Your task to perform on an android device: toggle sleep mode Image 0: 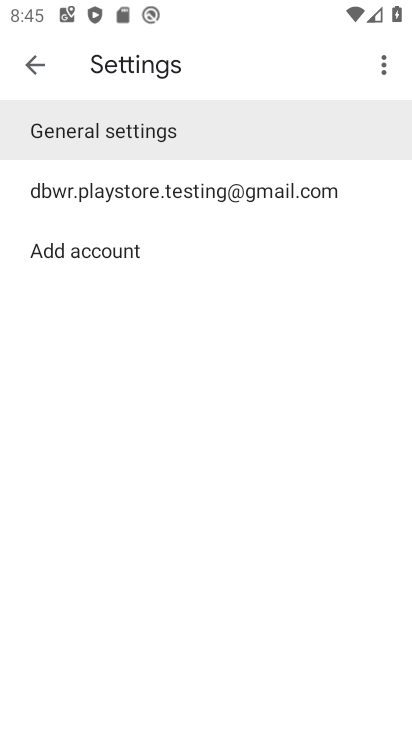
Step 0: press home button
Your task to perform on an android device: toggle sleep mode Image 1: 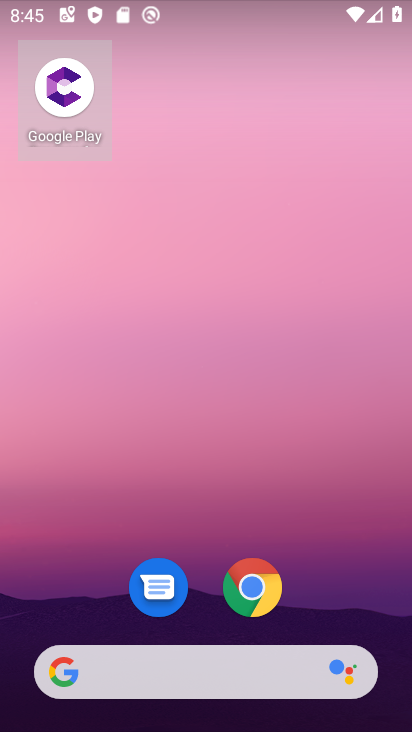
Step 1: drag from (350, 437) to (335, 21)
Your task to perform on an android device: toggle sleep mode Image 2: 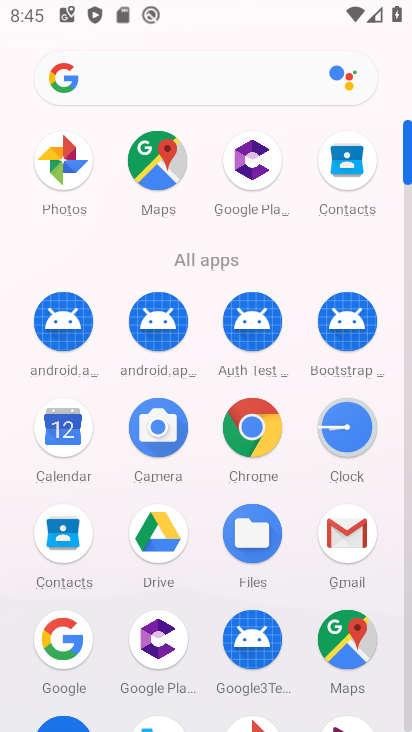
Step 2: drag from (297, 481) to (311, 20)
Your task to perform on an android device: toggle sleep mode Image 3: 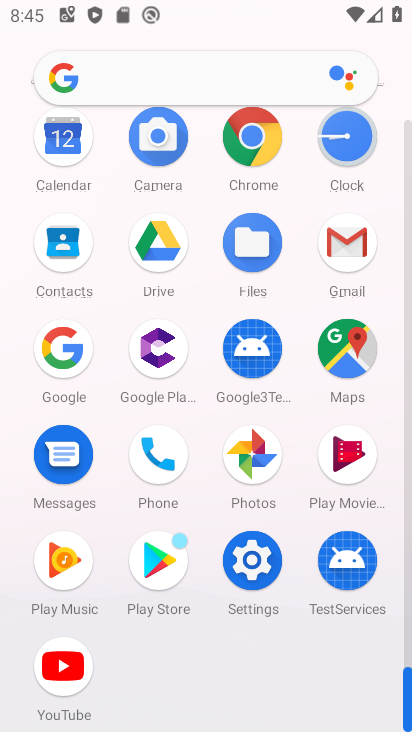
Step 3: click (243, 564)
Your task to perform on an android device: toggle sleep mode Image 4: 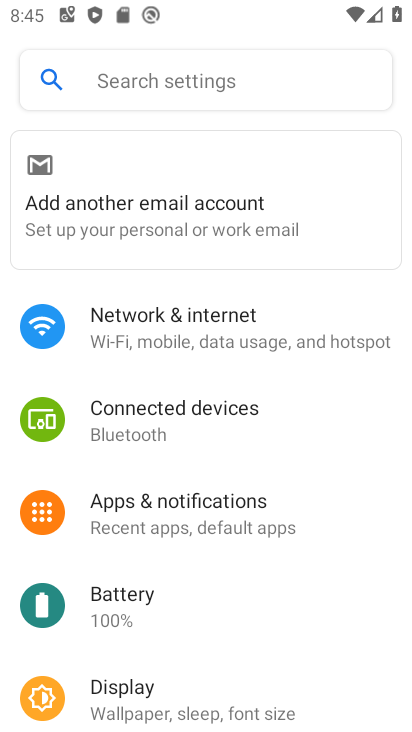
Step 4: drag from (229, 498) to (264, 173)
Your task to perform on an android device: toggle sleep mode Image 5: 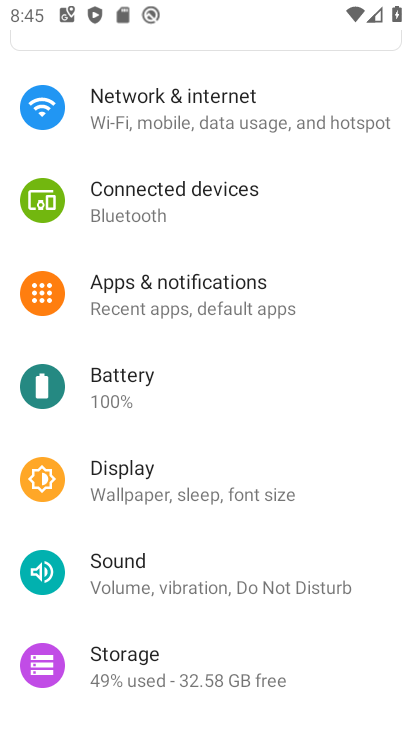
Step 5: click (160, 474)
Your task to perform on an android device: toggle sleep mode Image 6: 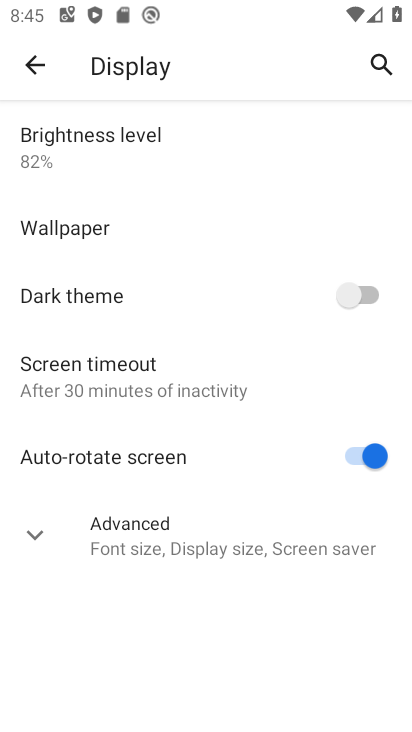
Step 6: click (129, 367)
Your task to perform on an android device: toggle sleep mode Image 7: 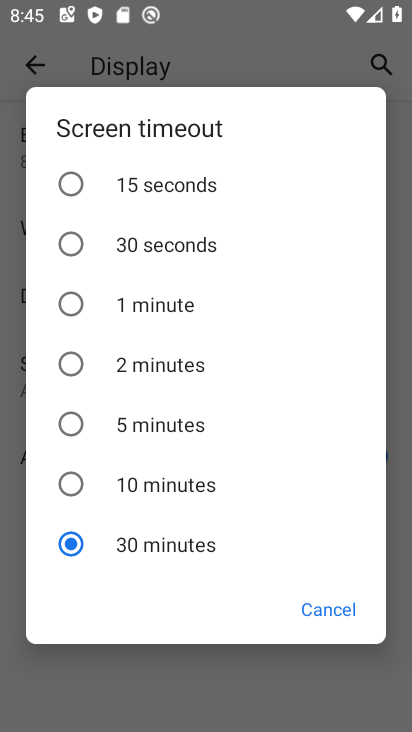
Step 7: click (112, 485)
Your task to perform on an android device: toggle sleep mode Image 8: 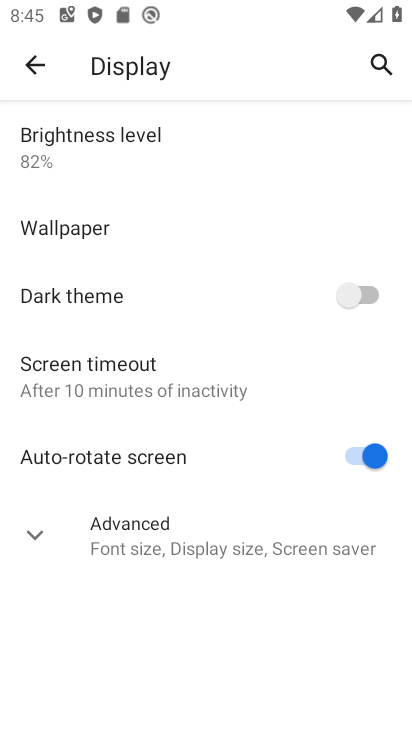
Step 8: task complete